Your task to perform on an android device: Toggle the flashlight Image 0: 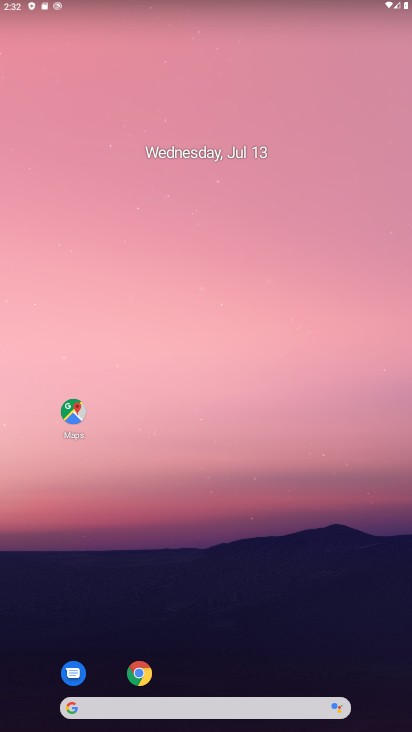
Step 0: drag from (220, 712) to (301, 93)
Your task to perform on an android device: Toggle the flashlight Image 1: 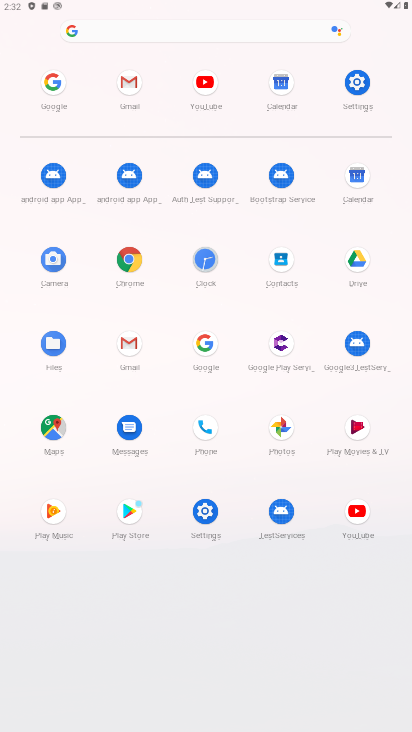
Step 1: click (358, 82)
Your task to perform on an android device: Toggle the flashlight Image 2: 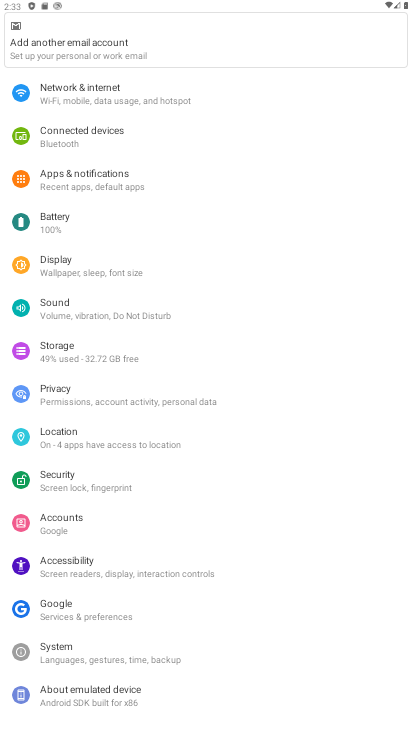
Step 2: click (75, 280)
Your task to perform on an android device: Toggle the flashlight Image 3: 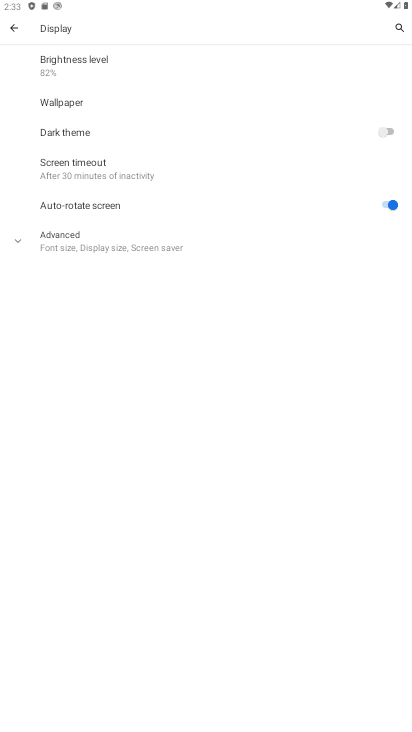
Step 3: click (76, 239)
Your task to perform on an android device: Toggle the flashlight Image 4: 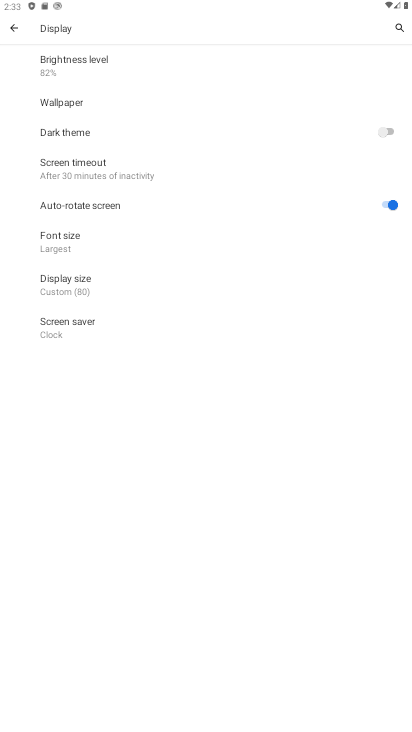
Step 4: press back button
Your task to perform on an android device: Toggle the flashlight Image 5: 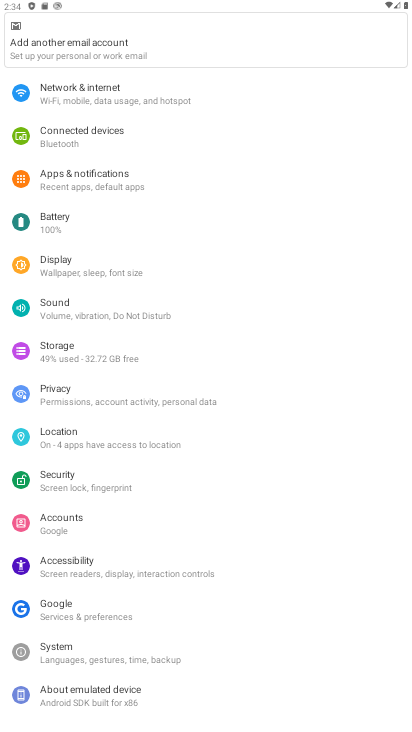
Step 5: click (93, 363)
Your task to perform on an android device: Toggle the flashlight Image 6: 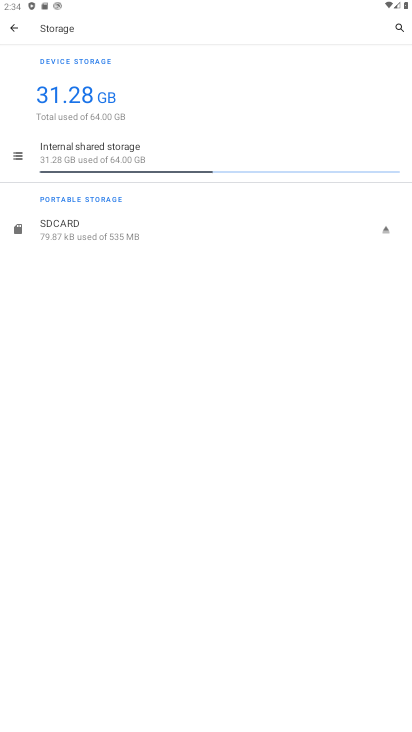
Step 6: press back button
Your task to perform on an android device: Toggle the flashlight Image 7: 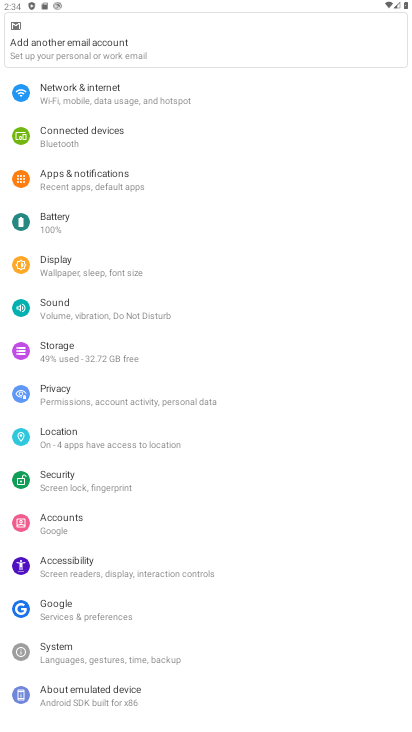
Step 7: click (60, 319)
Your task to perform on an android device: Toggle the flashlight Image 8: 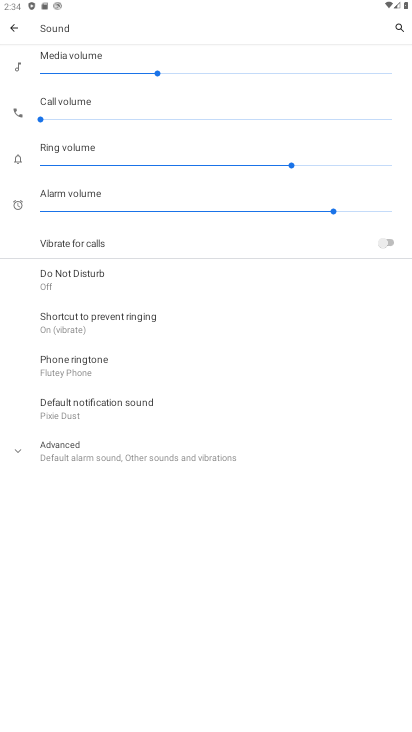
Step 8: press back button
Your task to perform on an android device: Toggle the flashlight Image 9: 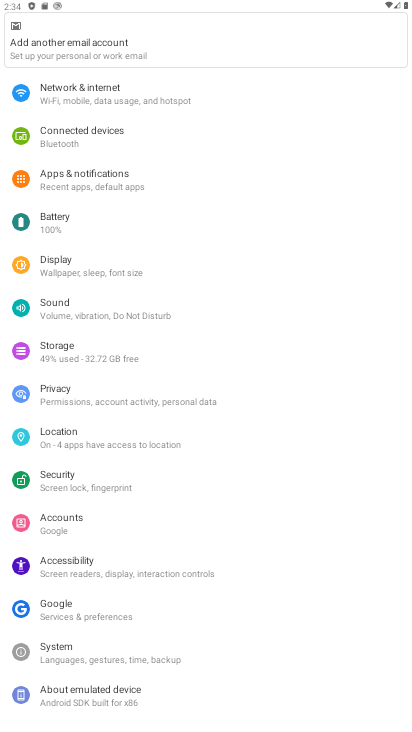
Step 9: click (142, 321)
Your task to perform on an android device: Toggle the flashlight Image 10: 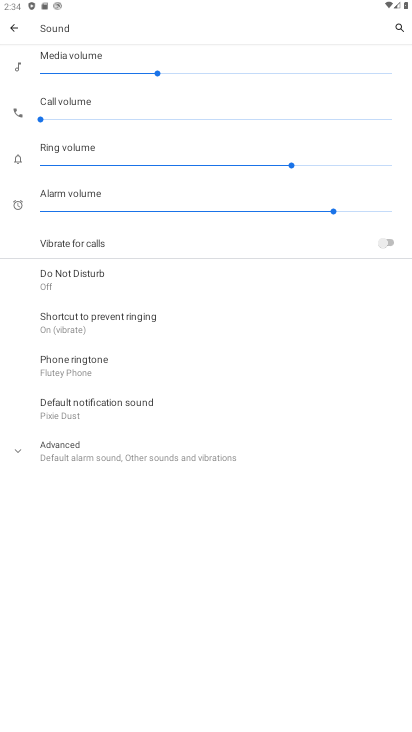
Step 10: task complete